Your task to perform on an android device: toggle sleep mode Image 0: 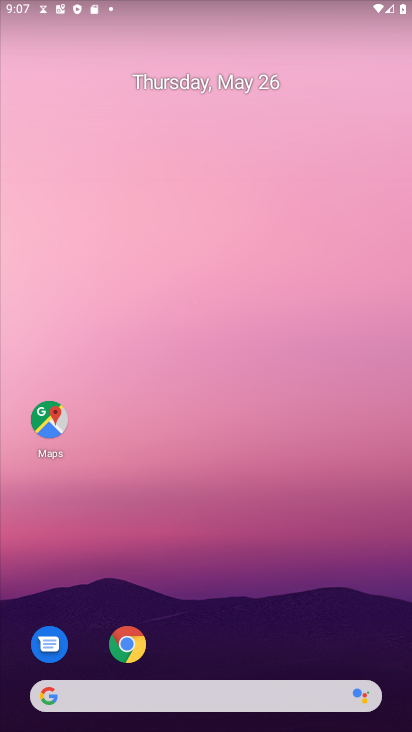
Step 0: drag from (213, 594) to (343, 83)
Your task to perform on an android device: toggle sleep mode Image 1: 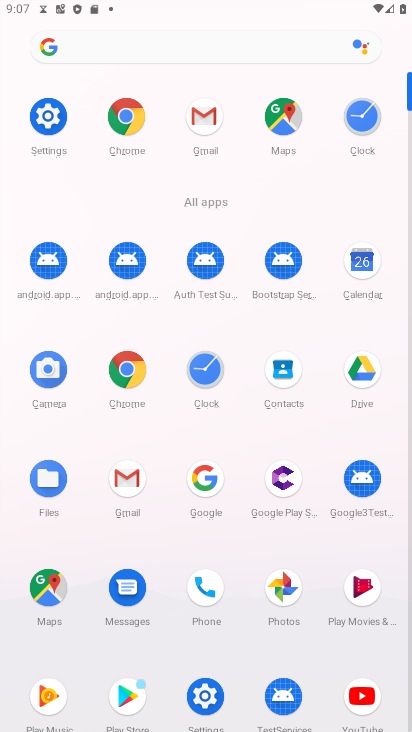
Step 1: click (64, 119)
Your task to perform on an android device: toggle sleep mode Image 2: 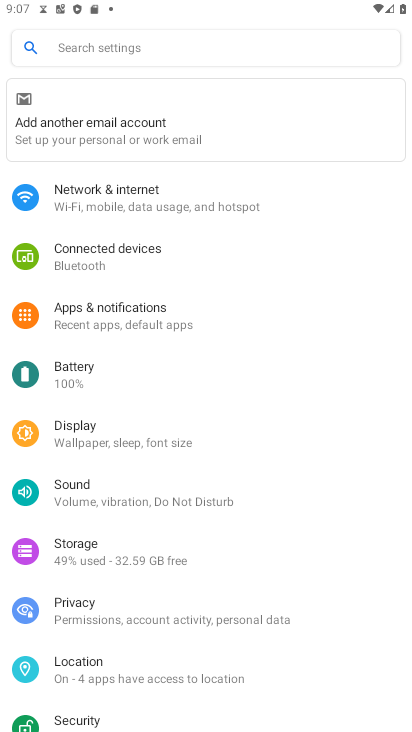
Step 2: click (117, 46)
Your task to perform on an android device: toggle sleep mode Image 3: 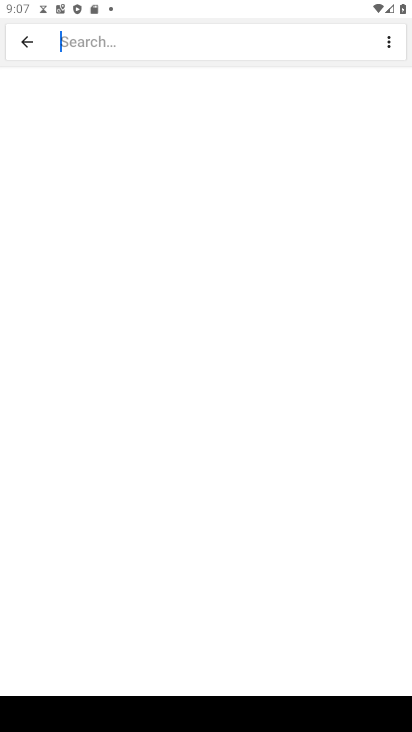
Step 3: type "sleep mode"
Your task to perform on an android device: toggle sleep mode Image 4: 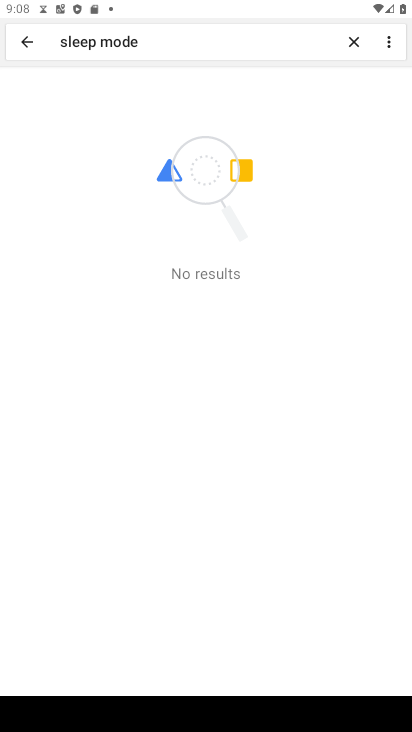
Step 4: task complete